Your task to perform on an android device: Go to Maps Image 0: 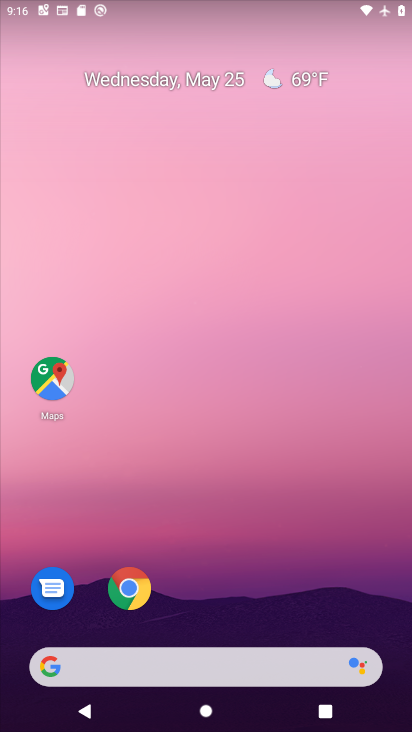
Step 0: drag from (381, 610) to (370, 225)
Your task to perform on an android device: Go to Maps Image 1: 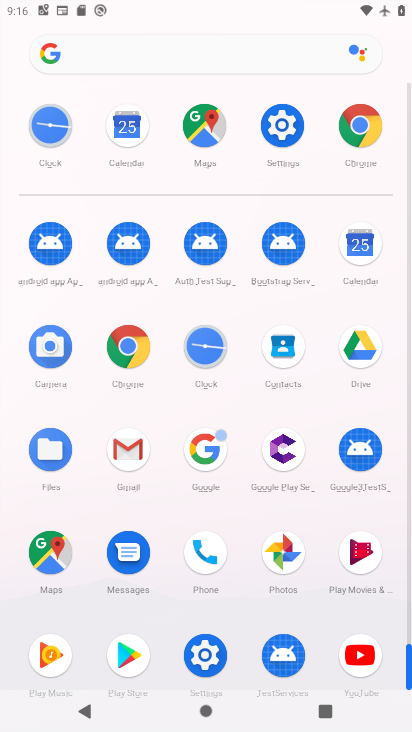
Step 1: click (52, 561)
Your task to perform on an android device: Go to Maps Image 2: 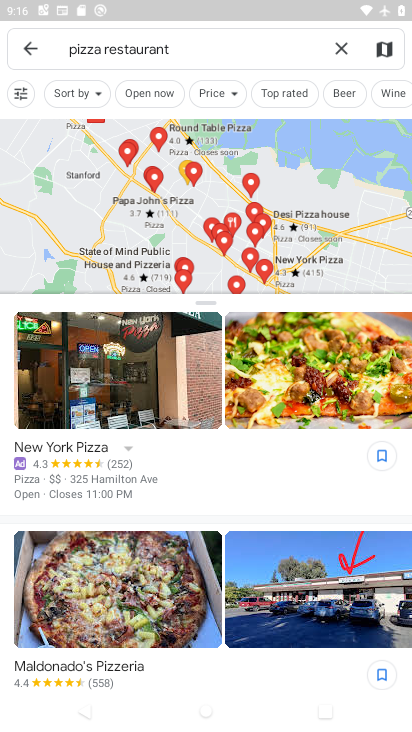
Step 2: task complete